Your task to perform on an android device: turn pop-ups off in chrome Image 0: 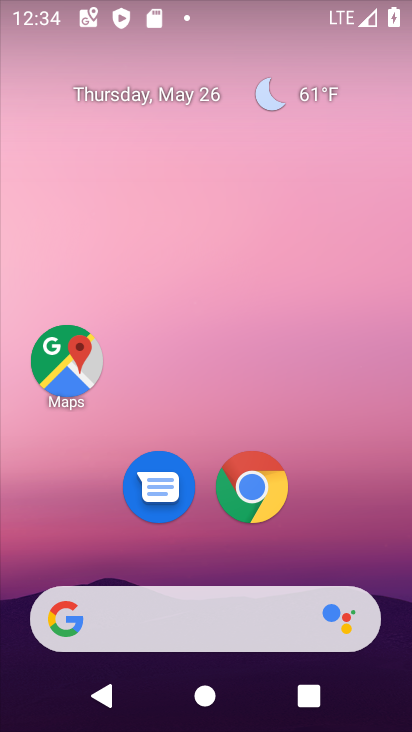
Step 0: drag from (279, 662) to (189, 173)
Your task to perform on an android device: turn pop-ups off in chrome Image 1: 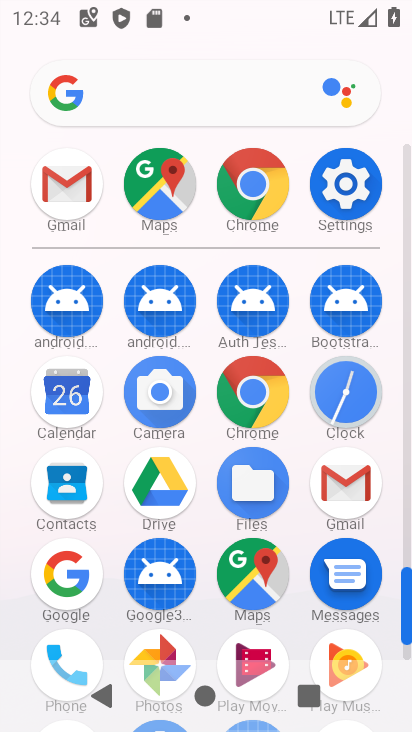
Step 1: click (246, 185)
Your task to perform on an android device: turn pop-ups off in chrome Image 2: 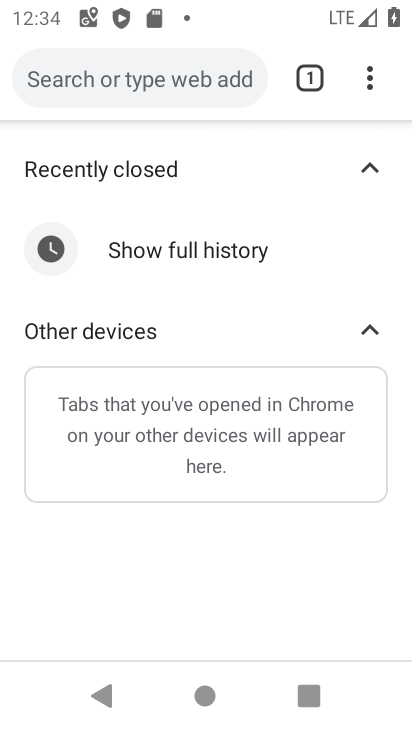
Step 2: drag from (364, 88) to (77, 548)
Your task to perform on an android device: turn pop-ups off in chrome Image 3: 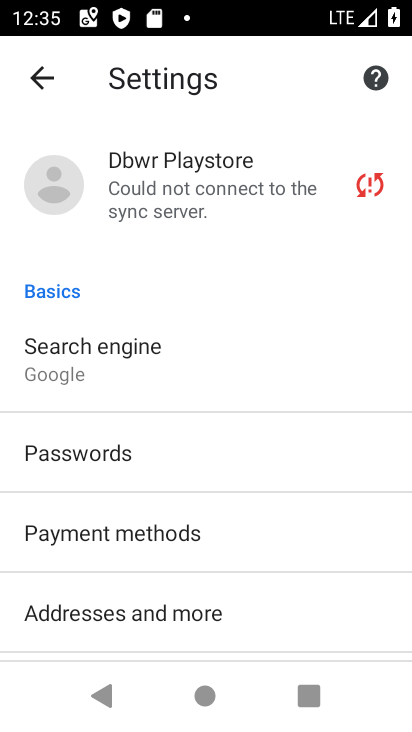
Step 3: drag from (140, 522) to (116, 142)
Your task to perform on an android device: turn pop-ups off in chrome Image 4: 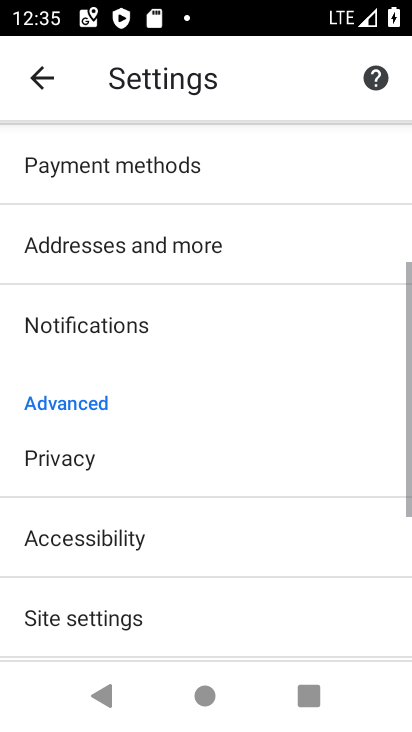
Step 4: drag from (150, 457) to (186, 225)
Your task to perform on an android device: turn pop-ups off in chrome Image 5: 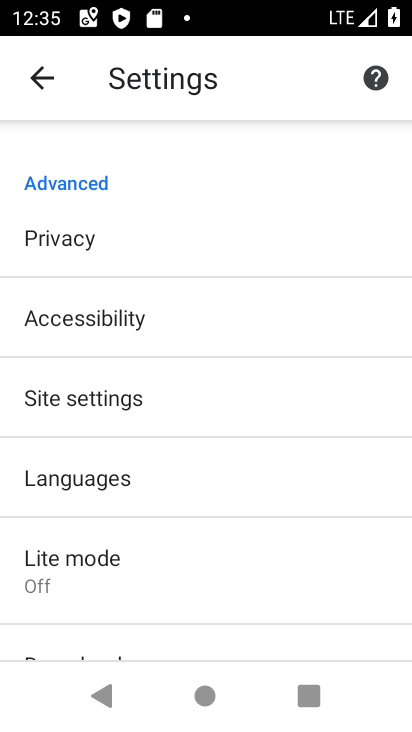
Step 5: drag from (75, 475) to (95, 200)
Your task to perform on an android device: turn pop-ups off in chrome Image 6: 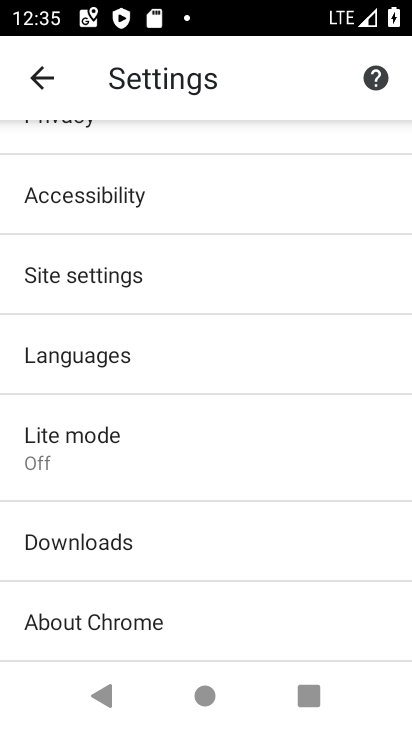
Step 6: drag from (72, 509) to (59, 194)
Your task to perform on an android device: turn pop-ups off in chrome Image 7: 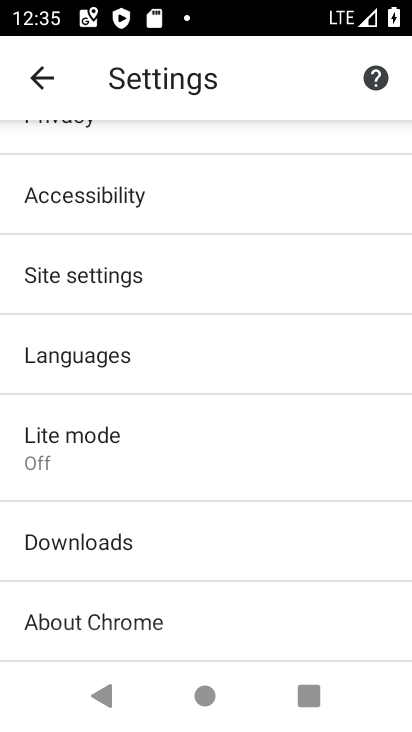
Step 7: drag from (106, 429) to (108, 167)
Your task to perform on an android device: turn pop-ups off in chrome Image 8: 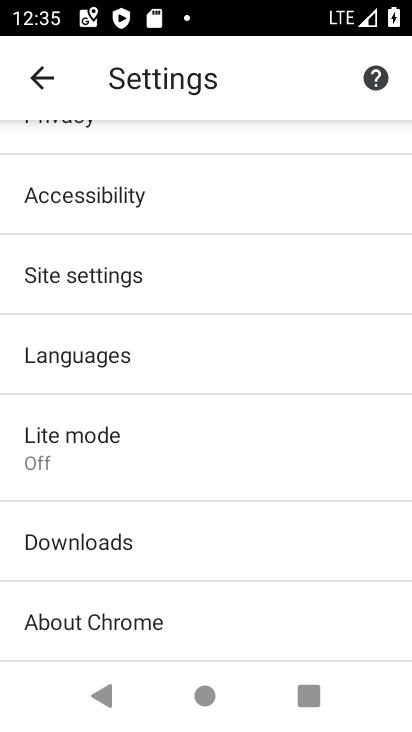
Step 8: drag from (121, 415) to (81, 206)
Your task to perform on an android device: turn pop-ups off in chrome Image 9: 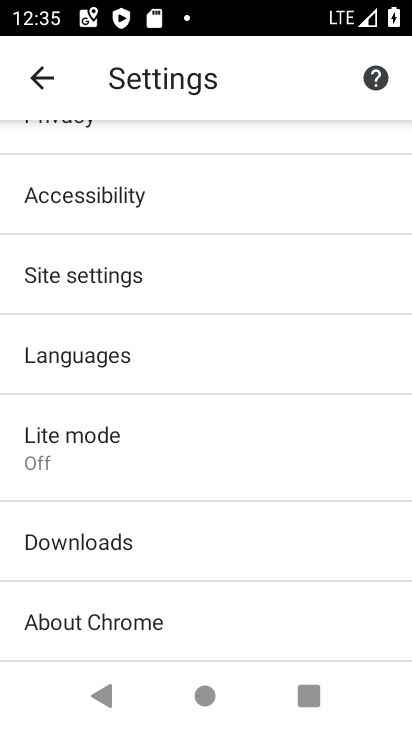
Step 9: click (83, 195)
Your task to perform on an android device: turn pop-ups off in chrome Image 10: 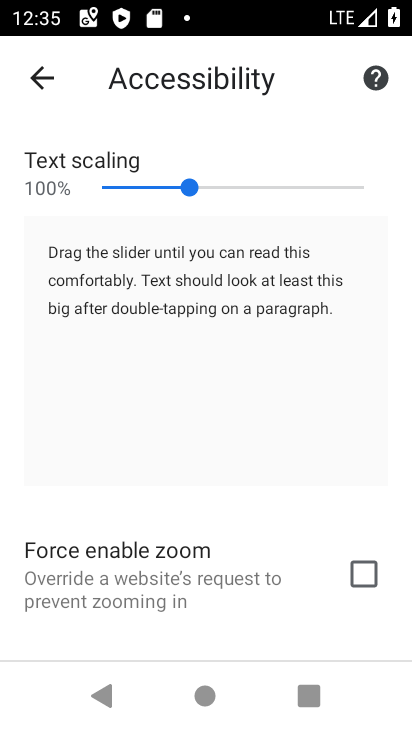
Step 10: click (42, 79)
Your task to perform on an android device: turn pop-ups off in chrome Image 11: 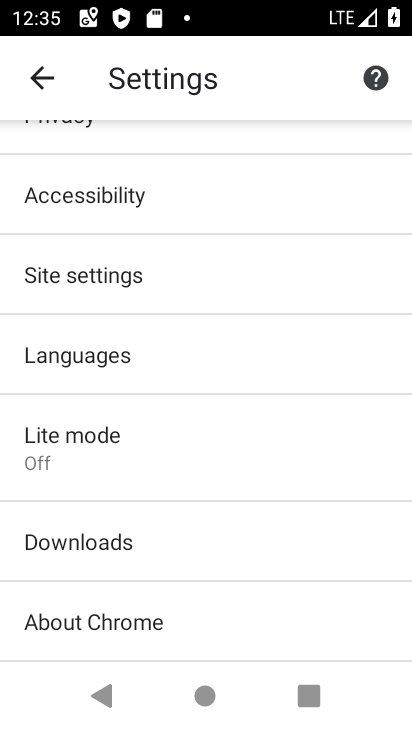
Step 11: click (65, 273)
Your task to perform on an android device: turn pop-ups off in chrome Image 12: 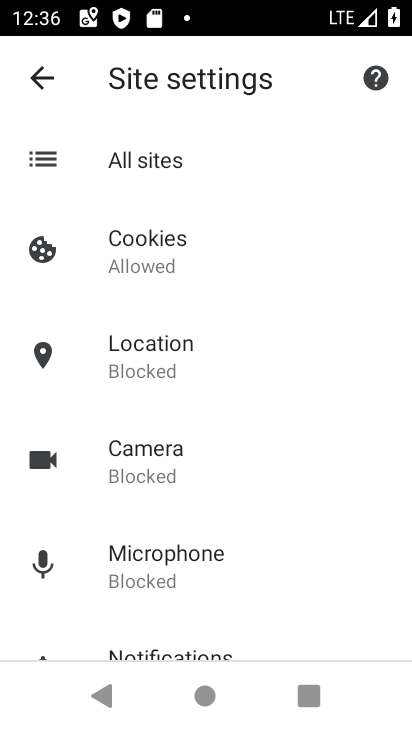
Step 12: drag from (169, 479) to (141, 145)
Your task to perform on an android device: turn pop-ups off in chrome Image 13: 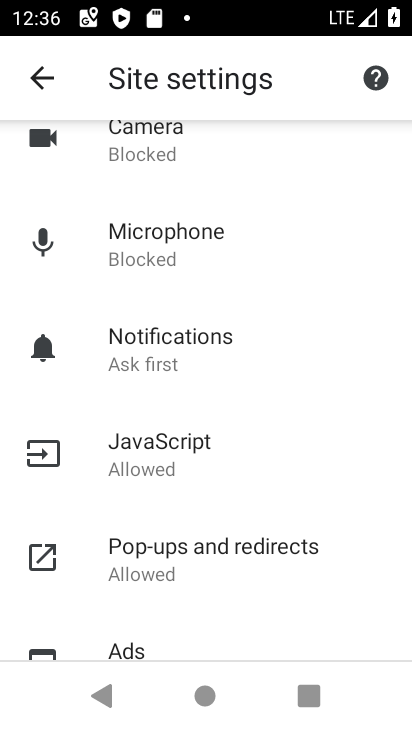
Step 13: click (165, 558)
Your task to perform on an android device: turn pop-ups off in chrome Image 14: 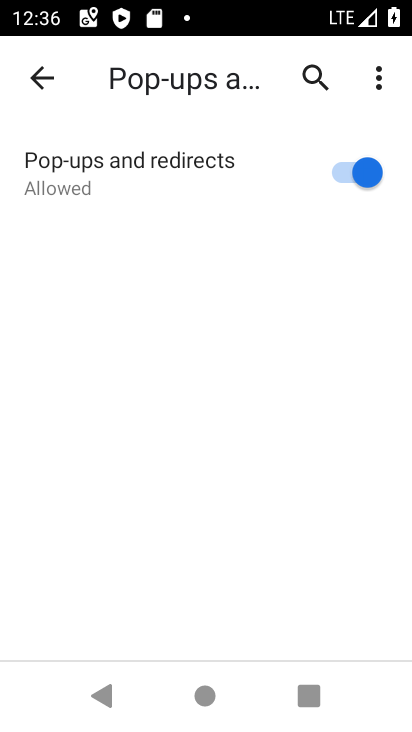
Step 14: click (383, 157)
Your task to perform on an android device: turn pop-ups off in chrome Image 15: 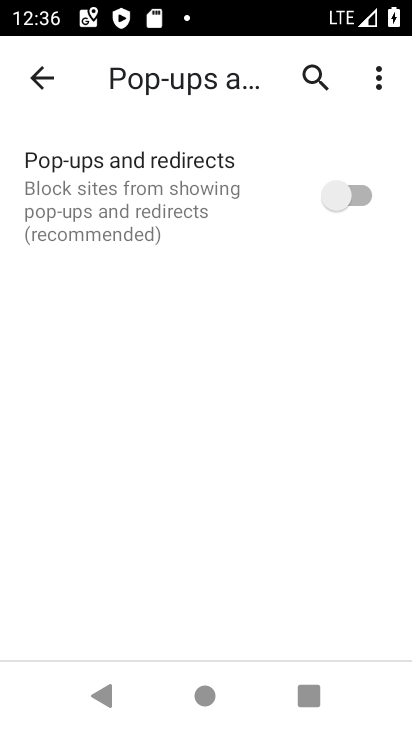
Step 15: task complete